Your task to perform on an android device: Go to settings Image 0: 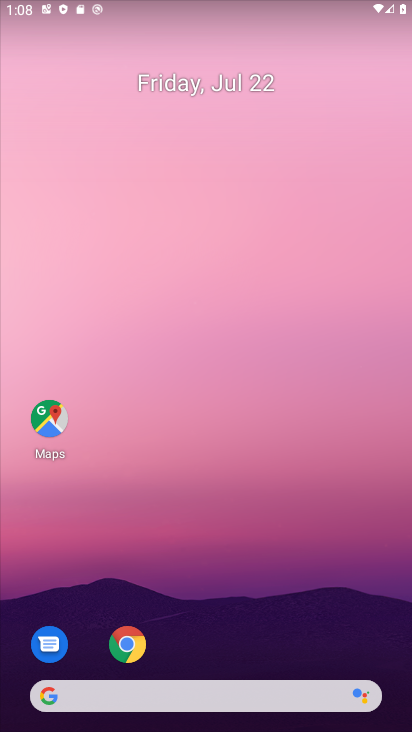
Step 0: drag from (314, 0) to (224, 73)
Your task to perform on an android device: Go to settings Image 1: 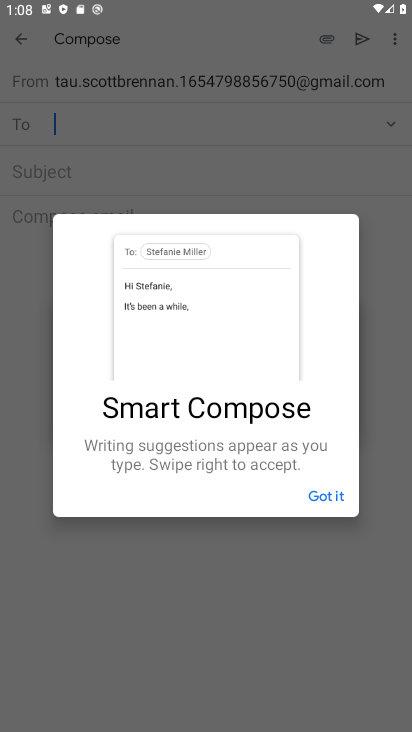
Step 1: press home button
Your task to perform on an android device: Go to settings Image 2: 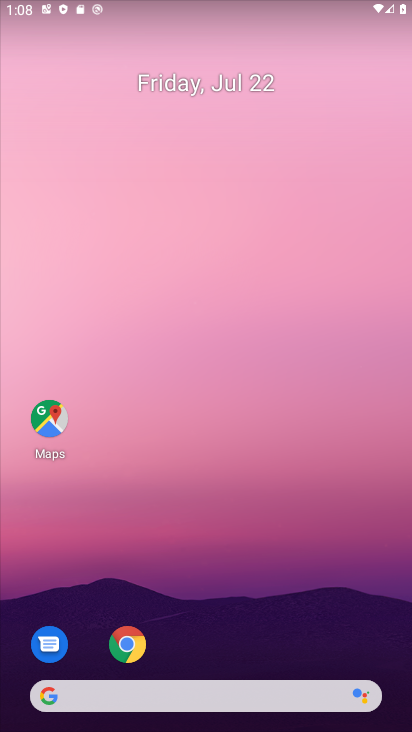
Step 2: drag from (228, 655) to (271, 29)
Your task to perform on an android device: Go to settings Image 3: 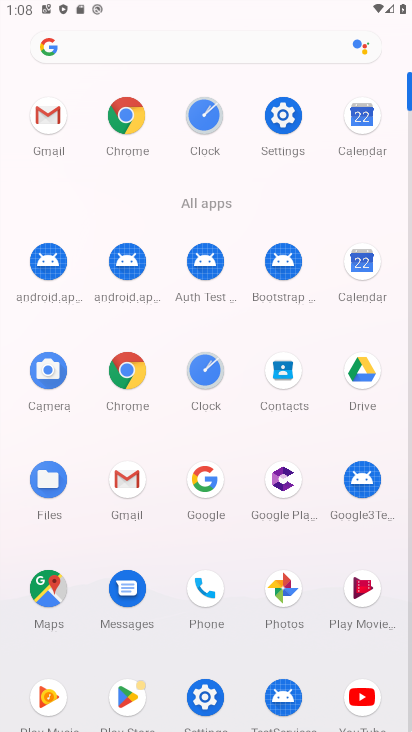
Step 3: click (276, 109)
Your task to perform on an android device: Go to settings Image 4: 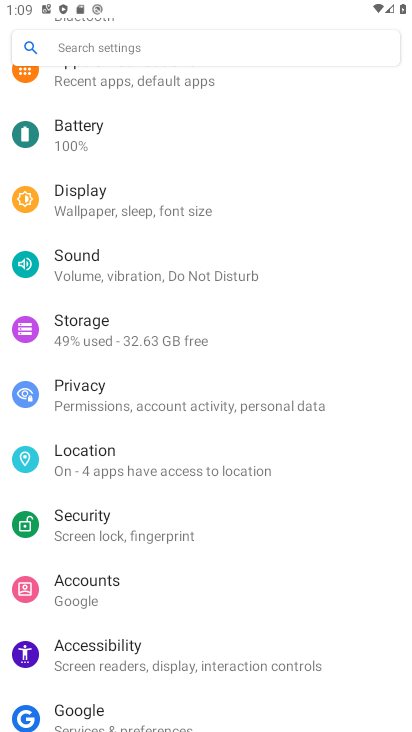
Step 4: task complete